Your task to perform on an android device: Do I have any events this weekend? Image 0: 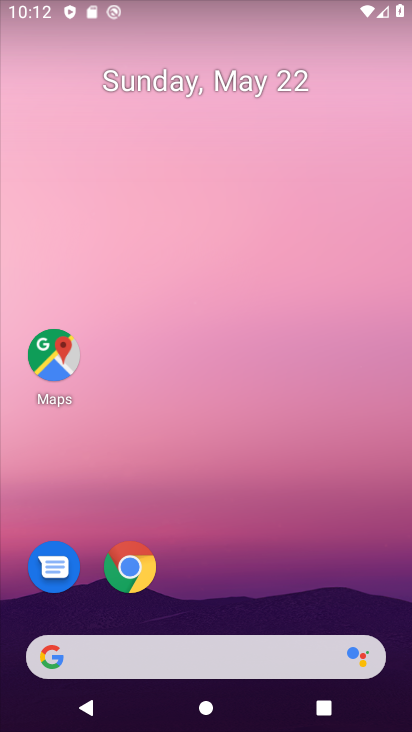
Step 0: drag from (162, 658) to (215, 136)
Your task to perform on an android device: Do I have any events this weekend? Image 1: 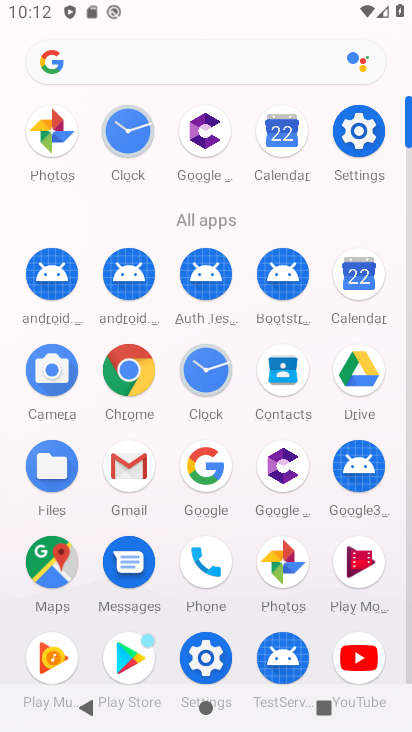
Step 1: click (367, 271)
Your task to perform on an android device: Do I have any events this weekend? Image 2: 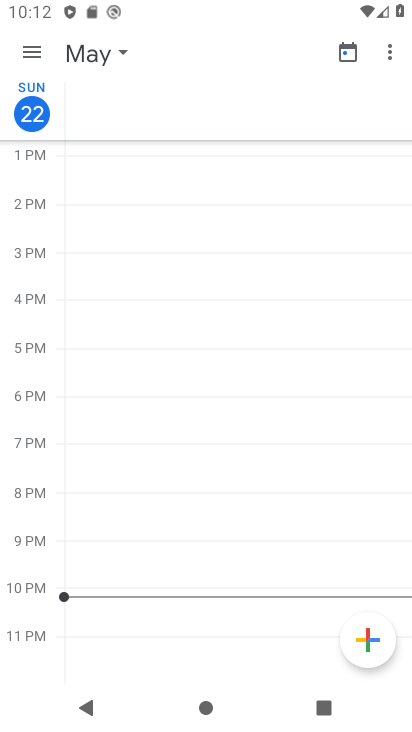
Step 2: click (40, 52)
Your task to perform on an android device: Do I have any events this weekend? Image 3: 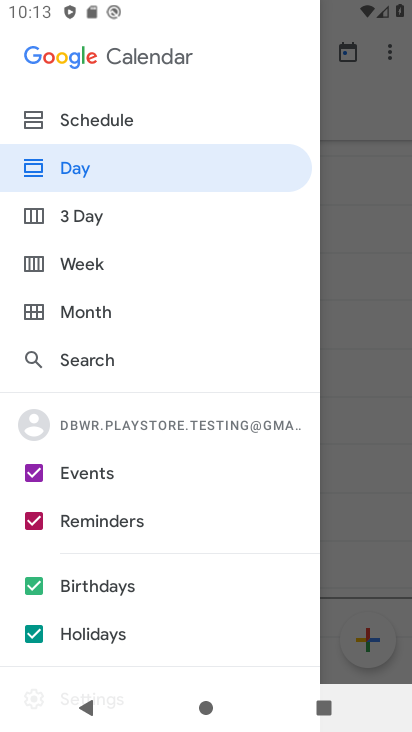
Step 3: click (84, 263)
Your task to perform on an android device: Do I have any events this weekend? Image 4: 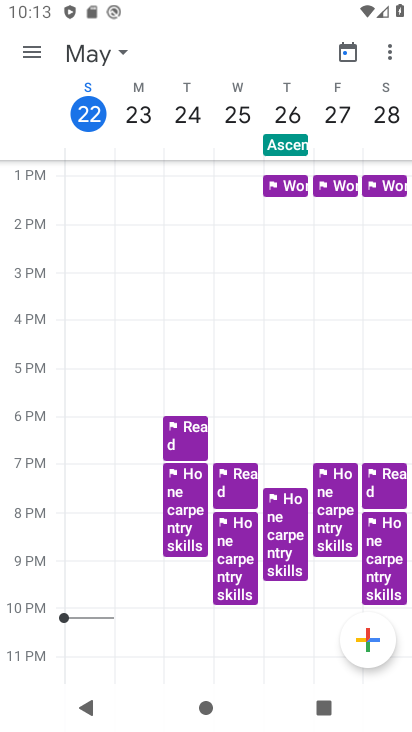
Step 4: task complete